Your task to perform on an android device: Open ESPN.com Image 0: 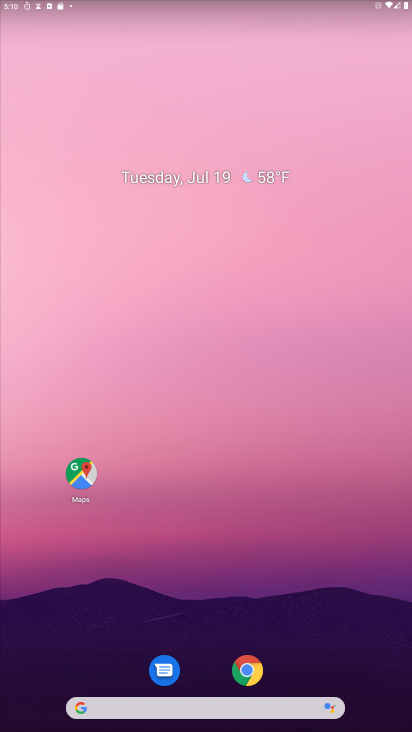
Step 0: drag from (283, 698) to (282, 86)
Your task to perform on an android device: Open ESPN.com Image 1: 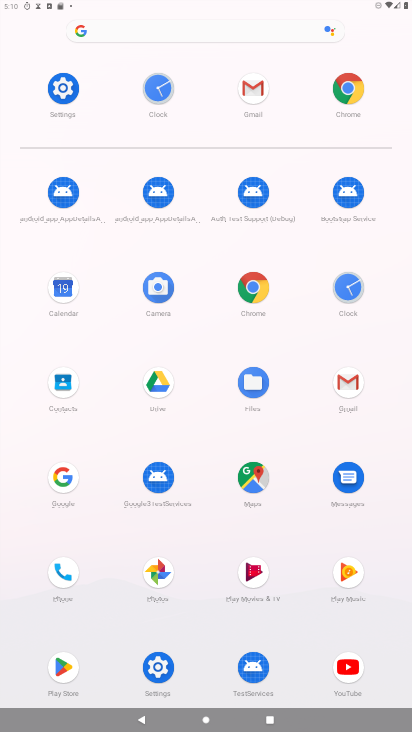
Step 1: click (256, 293)
Your task to perform on an android device: Open ESPN.com Image 2: 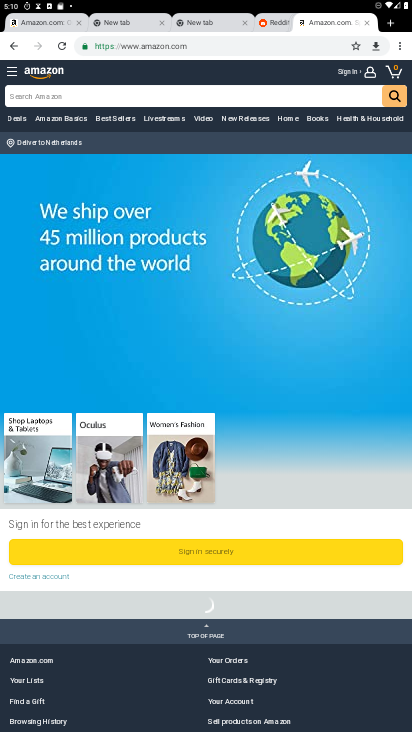
Step 2: type "espn.com"
Your task to perform on an android device: Open ESPN.com Image 3: 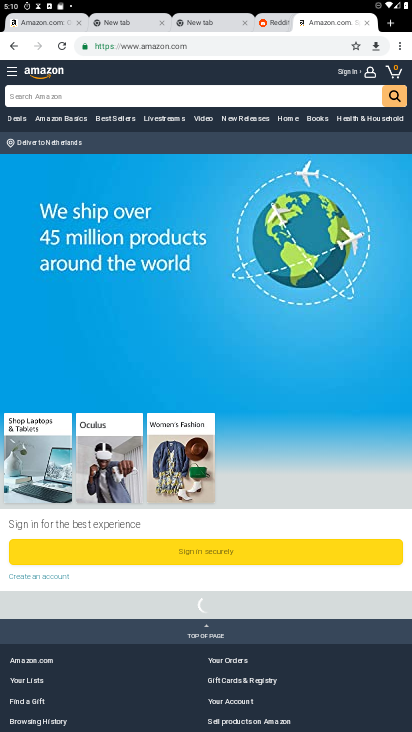
Step 3: click (162, 31)
Your task to perform on an android device: Open ESPN.com Image 4: 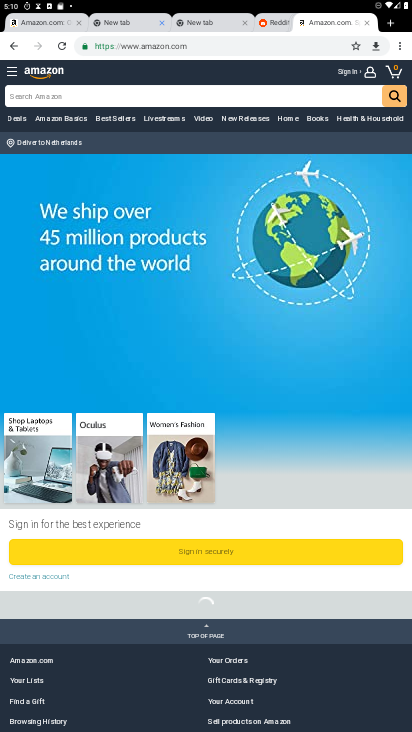
Step 4: click (163, 40)
Your task to perform on an android device: Open ESPN.com Image 5: 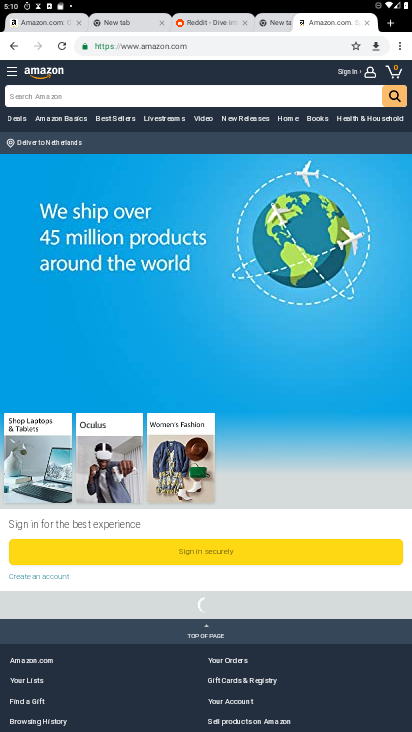
Step 5: click (164, 40)
Your task to perform on an android device: Open ESPN.com Image 6: 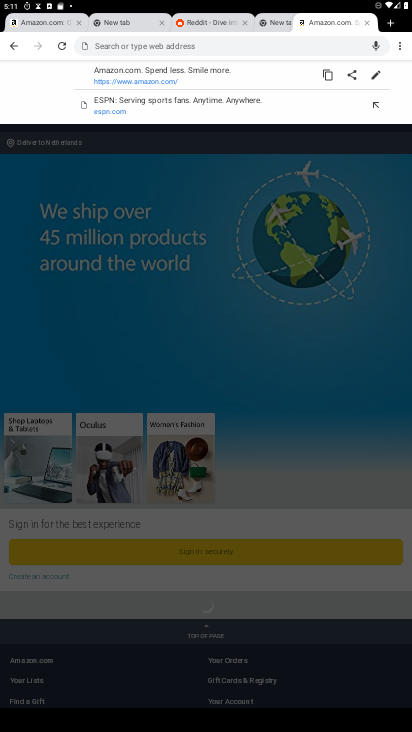
Step 6: type "espn.com"
Your task to perform on an android device: Open ESPN.com Image 7: 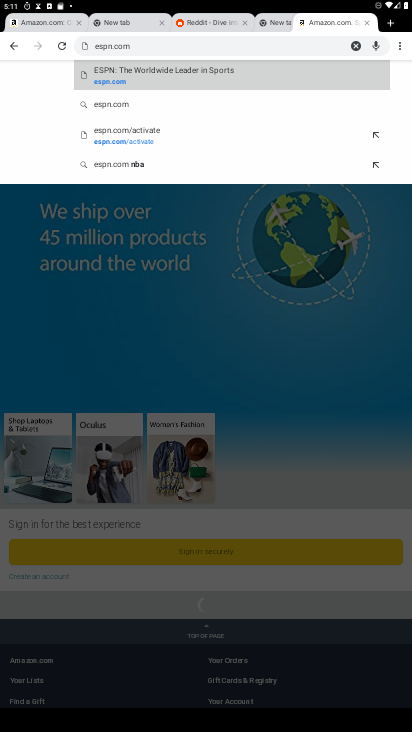
Step 7: click (184, 71)
Your task to perform on an android device: Open ESPN.com Image 8: 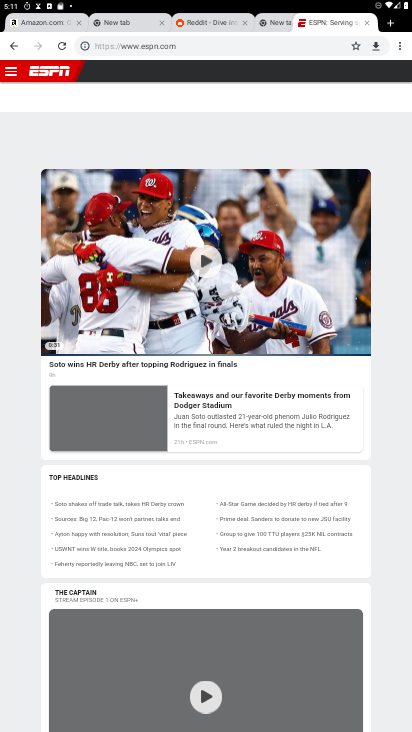
Step 8: task complete